Your task to perform on an android device: clear all cookies in the chrome app Image 0: 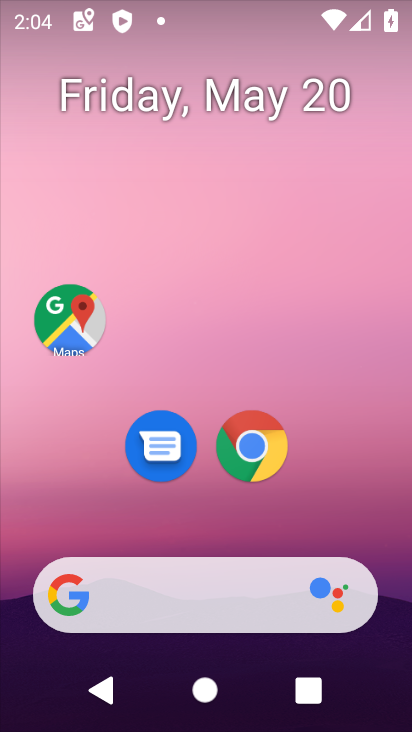
Step 0: click (251, 454)
Your task to perform on an android device: clear all cookies in the chrome app Image 1: 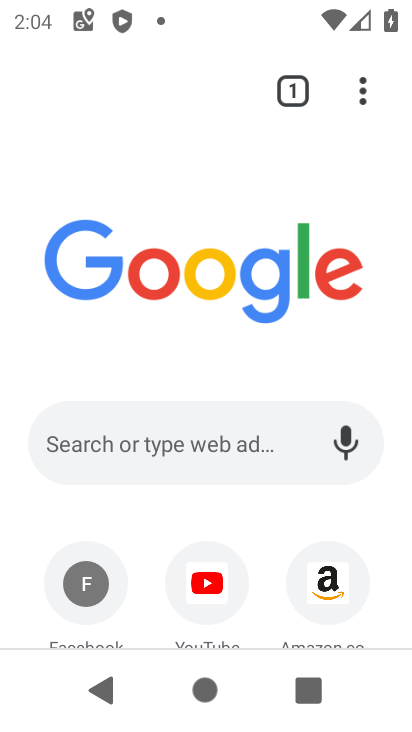
Step 1: click (365, 93)
Your task to perform on an android device: clear all cookies in the chrome app Image 2: 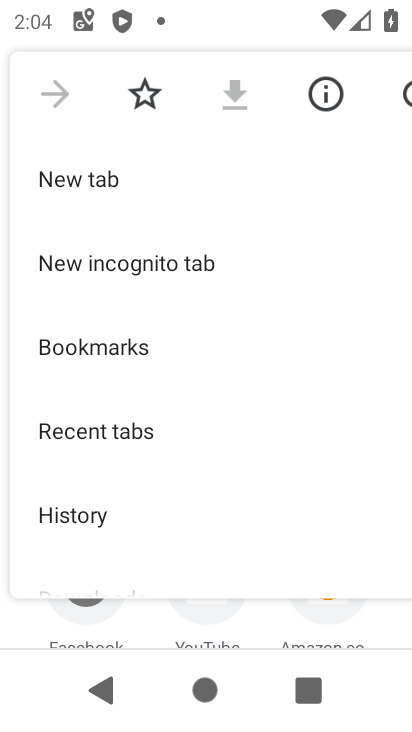
Step 2: drag from (205, 518) to (189, 110)
Your task to perform on an android device: clear all cookies in the chrome app Image 3: 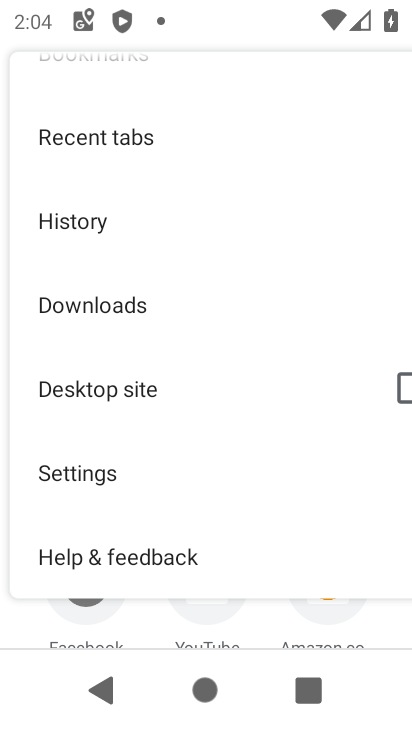
Step 3: click (93, 481)
Your task to perform on an android device: clear all cookies in the chrome app Image 4: 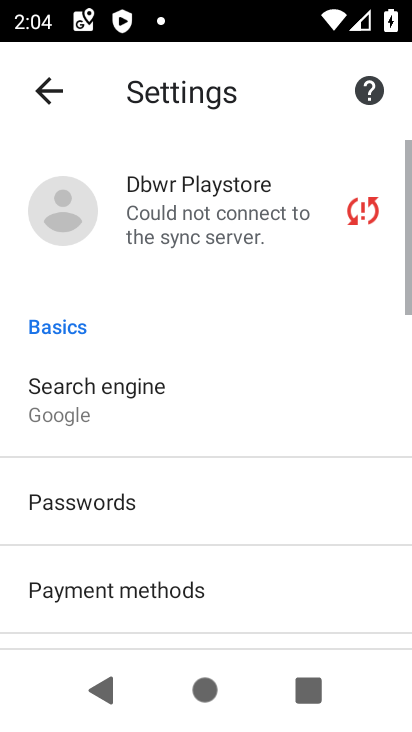
Step 4: drag from (175, 564) to (184, 124)
Your task to perform on an android device: clear all cookies in the chrome app Image 5: 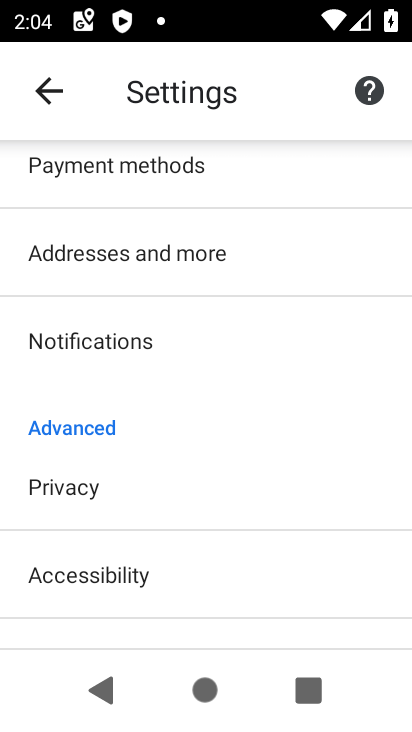
Step 5: drag from (128, 502) to (154, 174)
Your task to perform on an android device: clear all cookies in the chrome app Image 6: 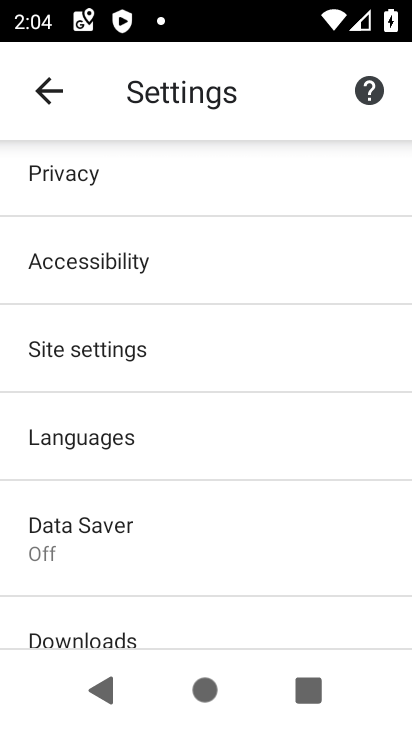
Step 6: click (70, 175)
Your task to perform on an android device: clear all cookies in the chrome app Image 7: 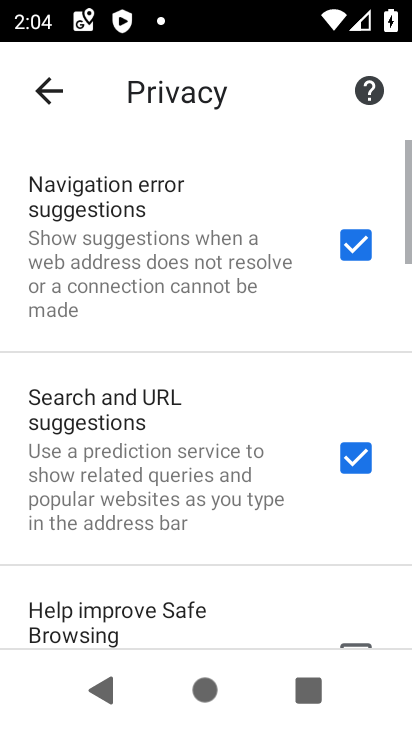
Step 7: drag from (147, 572) to (151, 164)
Your task to perform on an android device: clear all cookies in the chrome app Image 8: 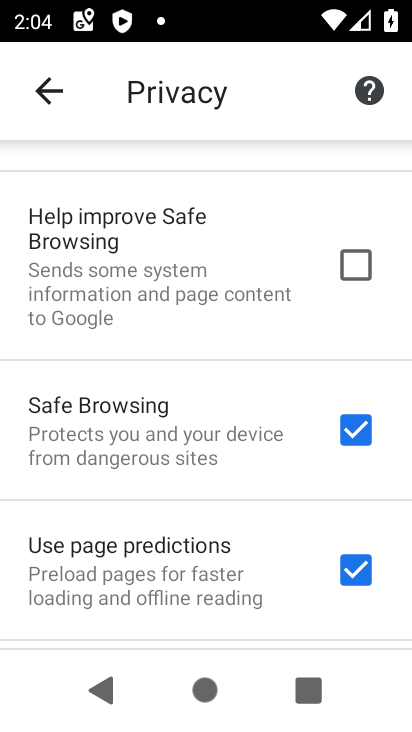
Step 8: drag from (145, 517) to (141, 195)
Your task to perform on an android device: clear all cookies in the chrome app Image 9: 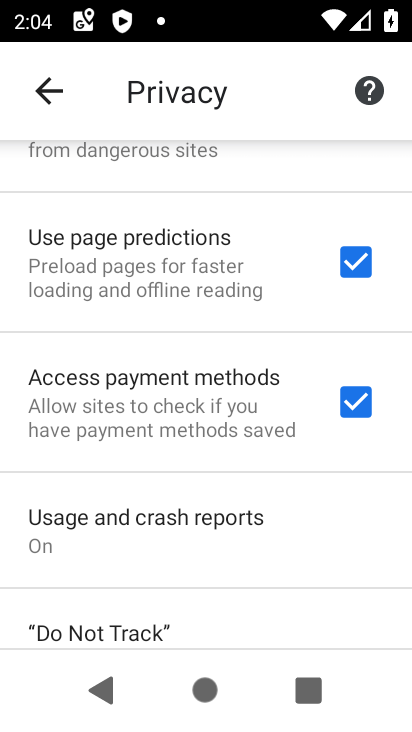
Step 9: drag from (124, 508) to (128, 184)
Your task to perform on an android device: clear all cookies in the chrome app Image 10: 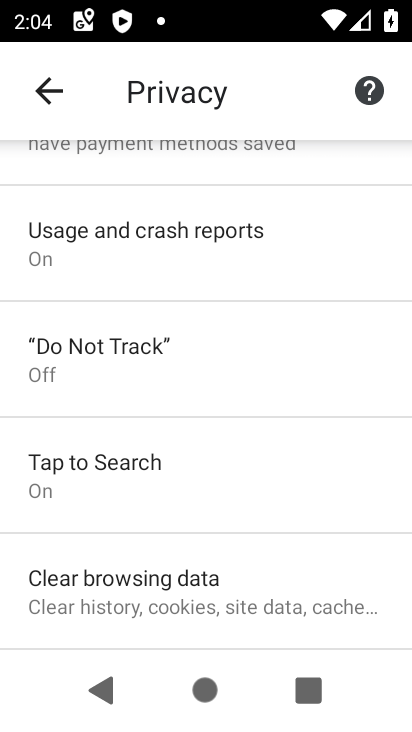
Step 10: click (97, 599)
Your task to perform on an android device: clear all cookies in the chrome app Image 11: 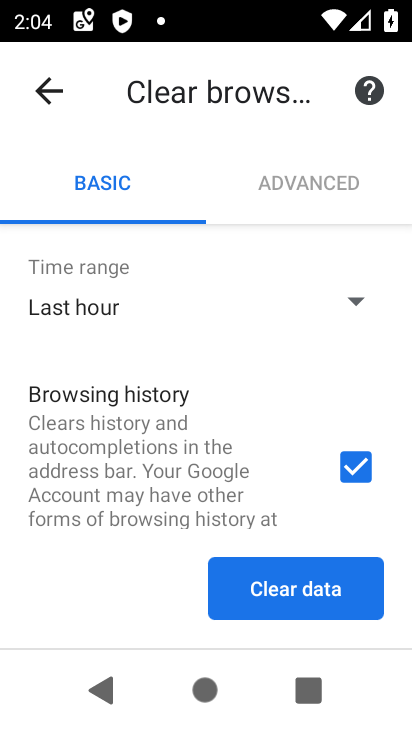
Step 11: click (359, 470)
Your task to perform on an android device: clear all cookies in the chrome app Image 12: 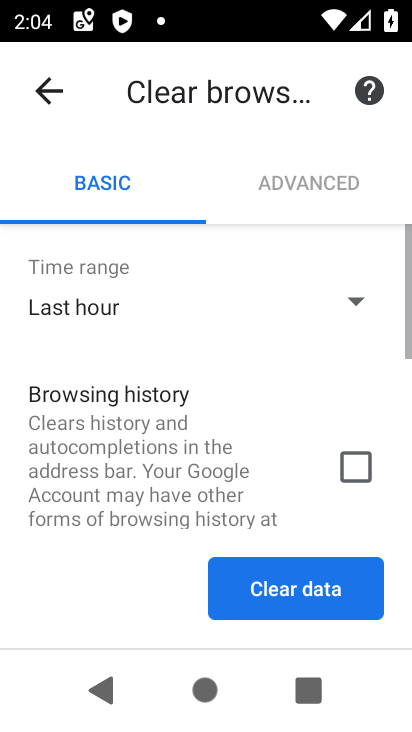
Step 12: drag from (90, 500) to (90, 239)
Your task to perform on an android device: clear all cookies in the chrome app Image 13: 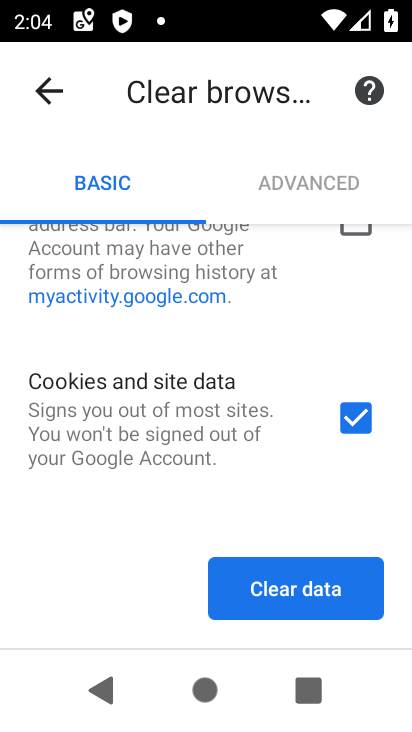
Step 13: drag from (79, 441) to (86, 246)
Your task to perform on an android device: clear all cookies in the chrome app Image 14: 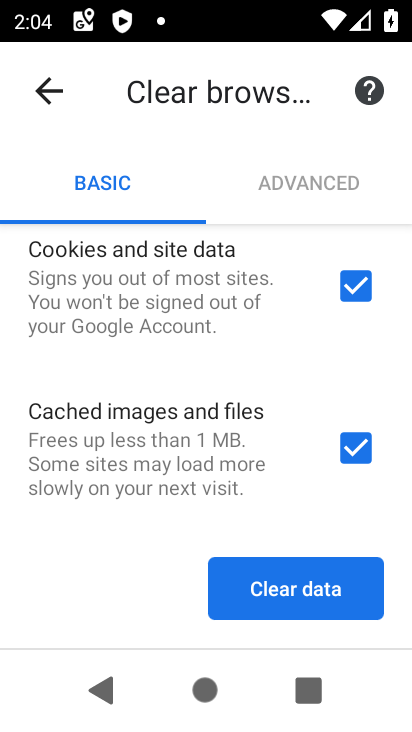
Step 14: click (351, 455)
Your task to perform on an android device: clear all cookies in the chrome app Image 15: 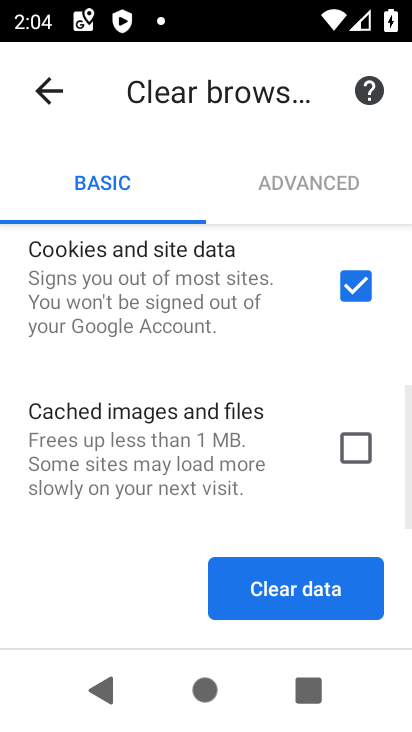
Step 15: click (287, 584)
Your task to perform on an android device: clear all cookies in the chrome app Image 16: 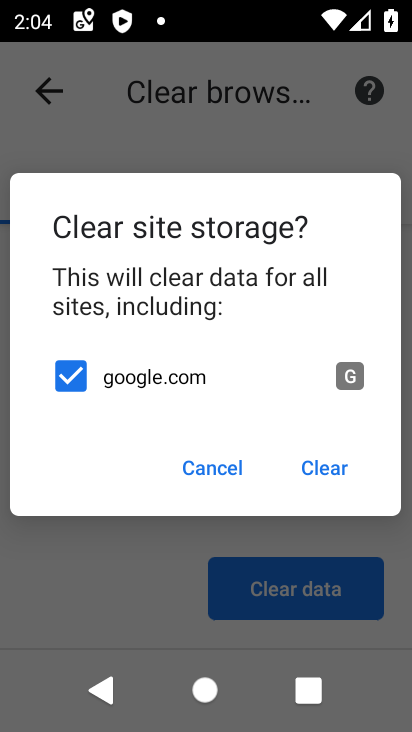
Step 16: click (309, 474)
Your task to perform on an android device: clear all cookies in the chrome app Image 17: 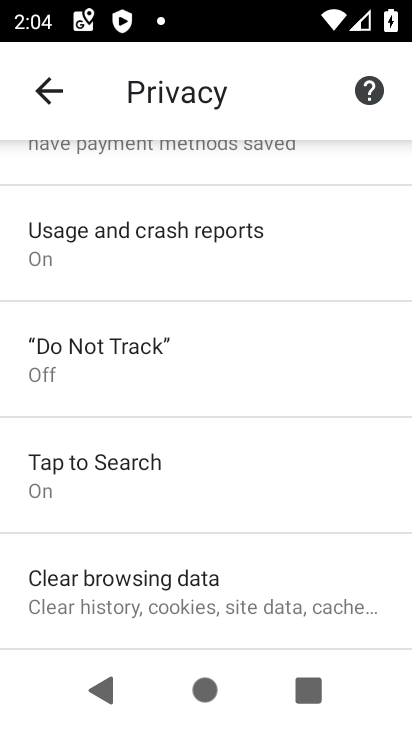
Step 17: task complete